Your task to perform on an android device: open app "Move to iOS" (install if not already installed) Image 0: 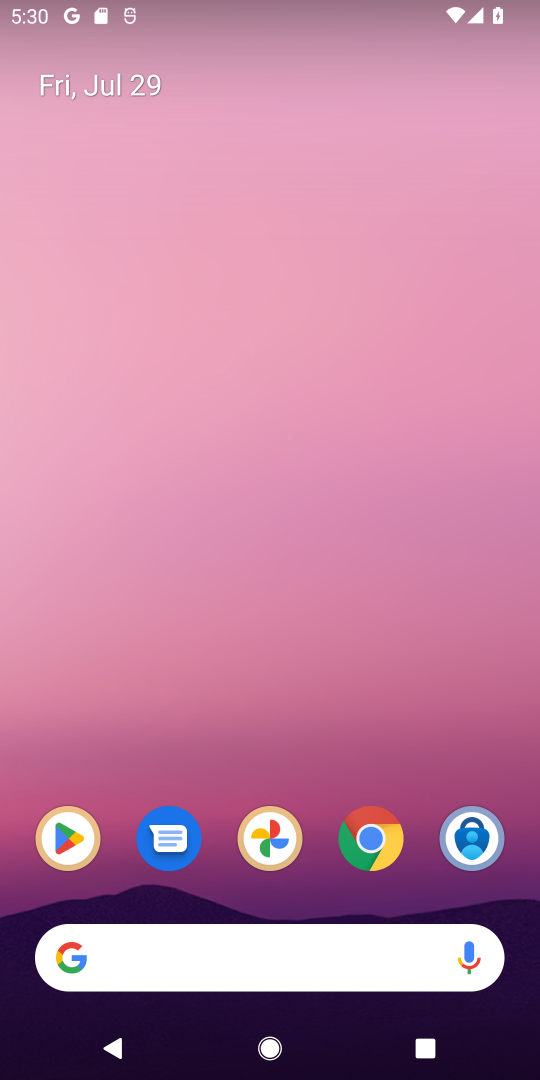
Step 0: click (67, 845)
Your task to perform on an android device: open app "Move to iOS" (install if not already installed) Image 1: 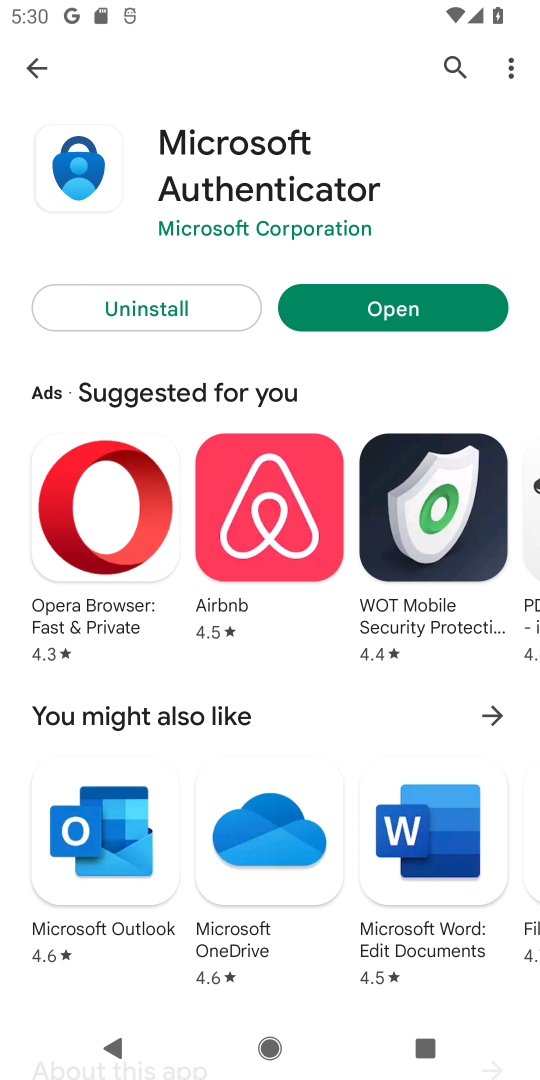
Step 1: click (460, 63)
Your task to perform on an android device: open app "Move to iOS" (install if not already installed) Image 2: 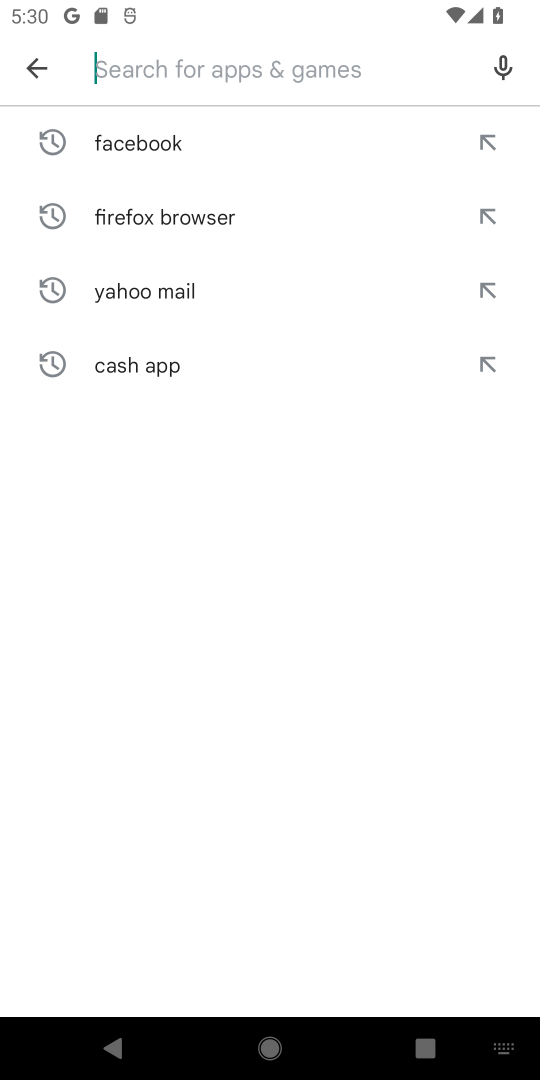
Step 2: click (326, 72)
Your task to perform on an android device: open app "Move to iOS" (install if not already installed) Image 3: 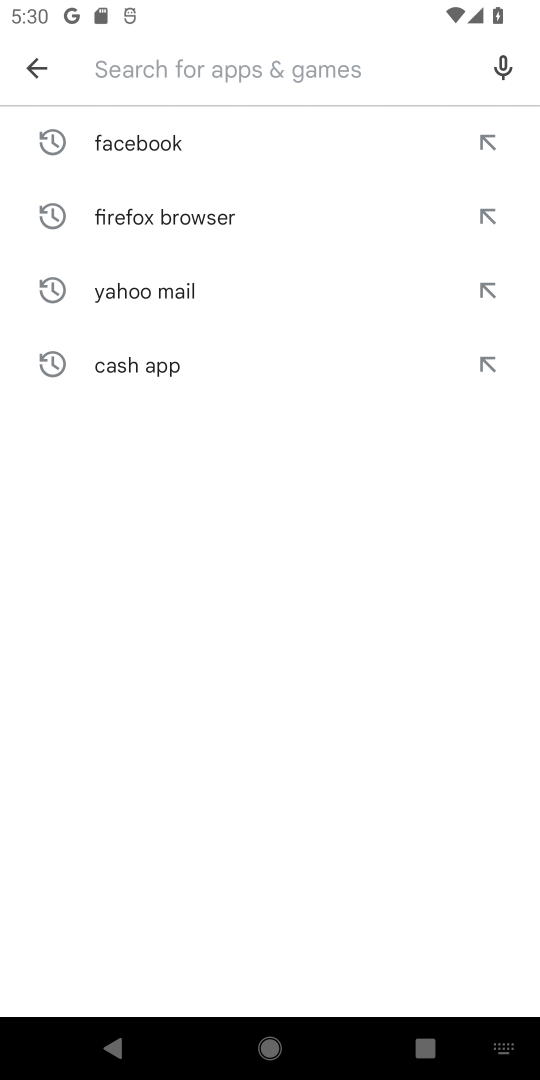
Step 3: type "move to ios"
Your task to perform on an android device: open app "Move to iOS" (install if not already installed) Image 4: 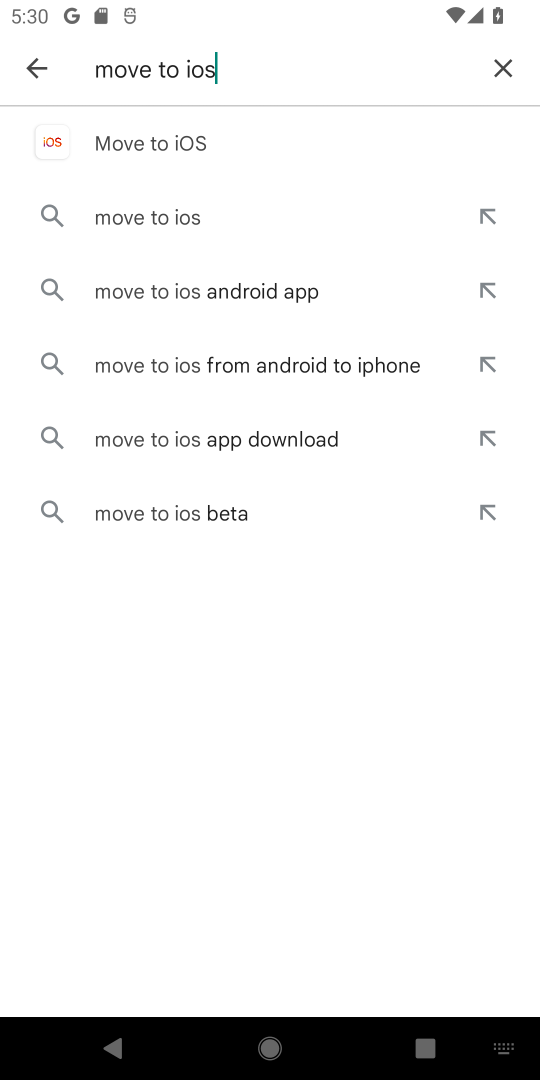
Step 4: click (112, 133)
Your task to perform on an android device: open app "Move to iOS" (install if not already installed) Image 5: 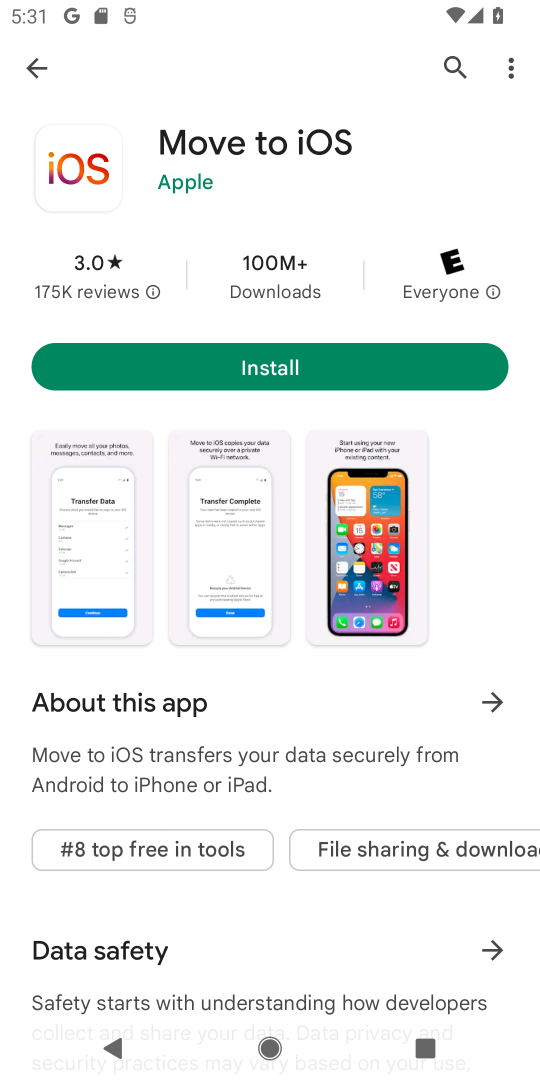
Step 5: click (245, 370)
Your task to perform on an android device: open app "Move to iOS" (install if not already installed) Image 6: 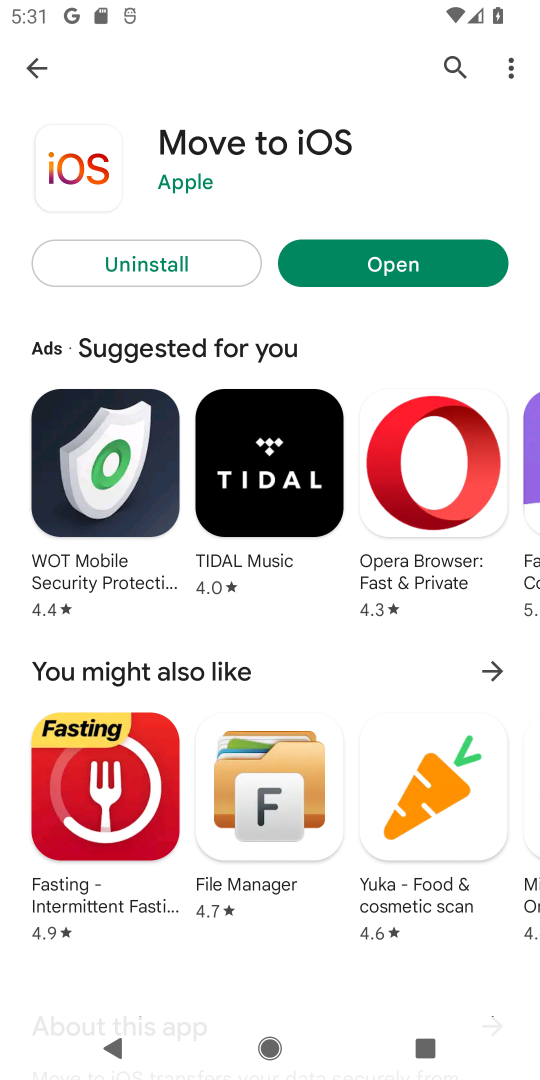
Step 6: click (402, 255)
Your task to perform on an android device: open app "Move to iOS" (install if not already installed) Image 7: 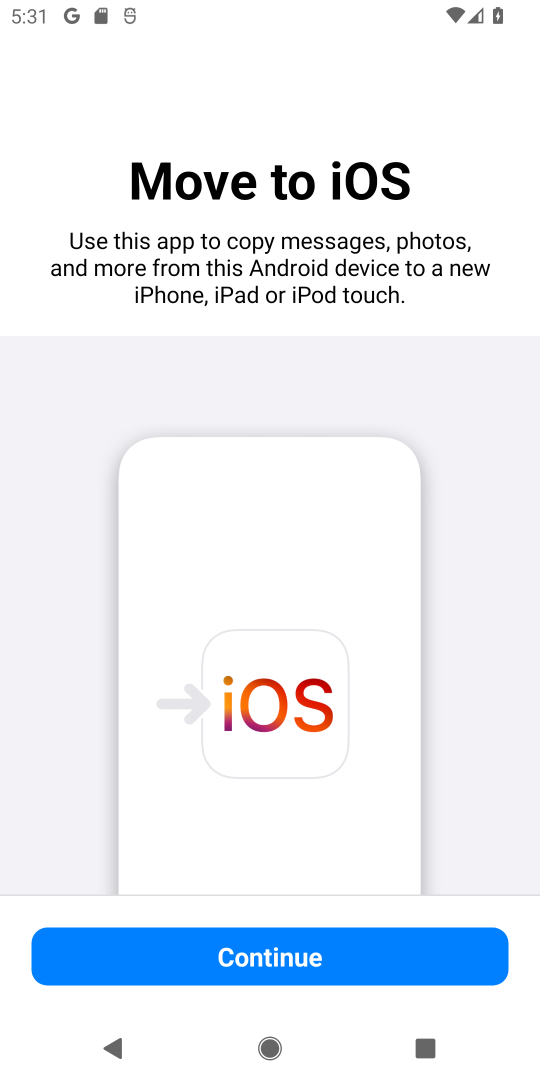
Step 7: click (264, 966)
Your task to perform on an android device: open app "Move to iOS" (install if not already installed) Image 8: 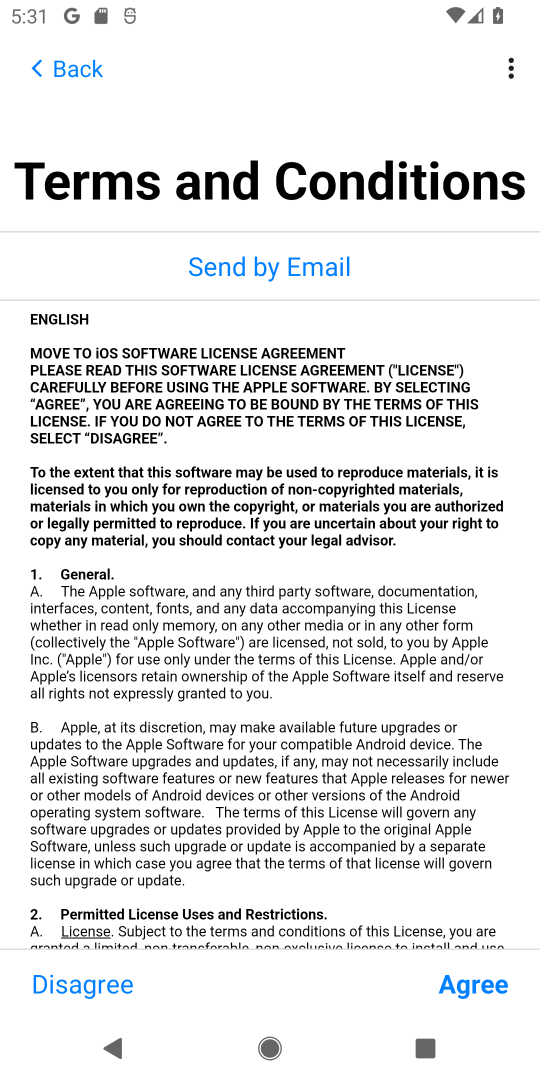
Step 8: task complete